Your task to perform on an android device: turn on airplane mode Image 0: 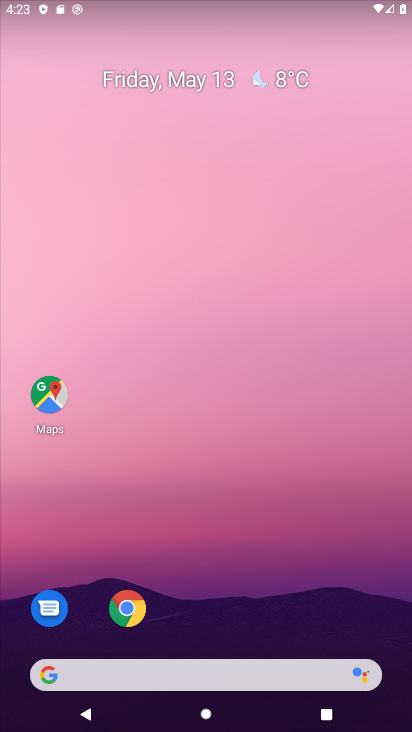
Step 0: drag from (280, 564) to (194, 132)
Your task to perform on an android device: turn on airplane mode Image 1: 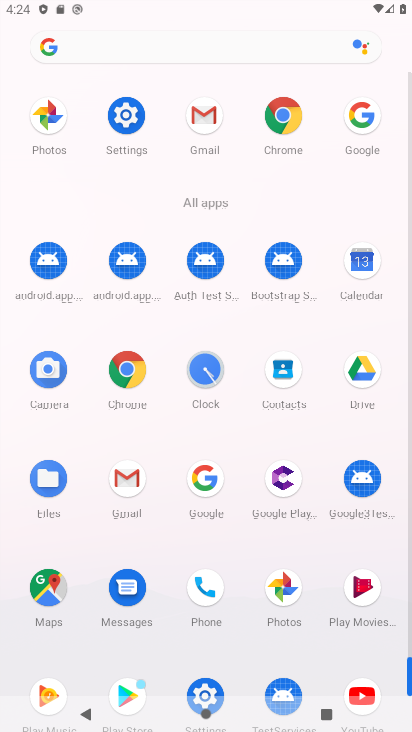
Step 1: click (129, 115)
Your task to perform on an android device: turn on airplane mode Image 2: 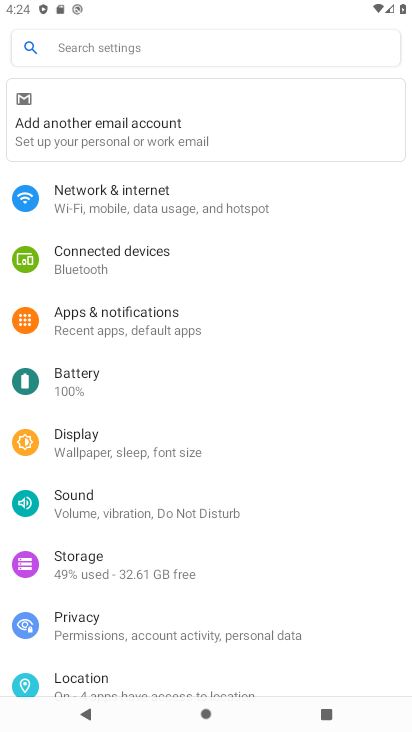
Step 2: click (144, 191)
Your task to perform on an android device: turn on airplane mode Image 3: 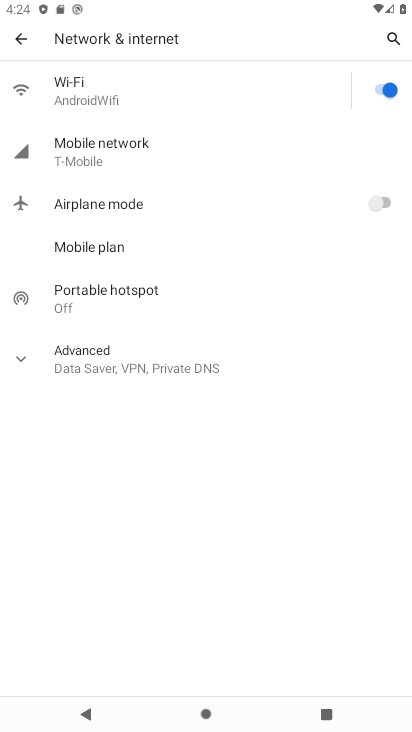
Step 3: click (389, 205)
Your task to perform on an android device: turn on airplane mode Image 4: 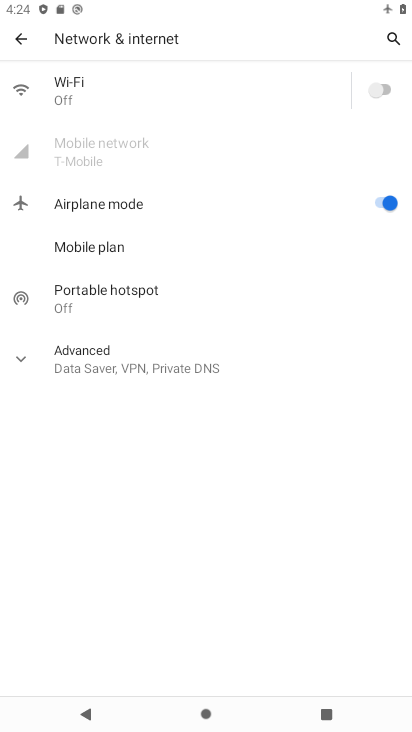
Step 4: task complete